Your task to perform on an android device: Go to Amazon Image 0: 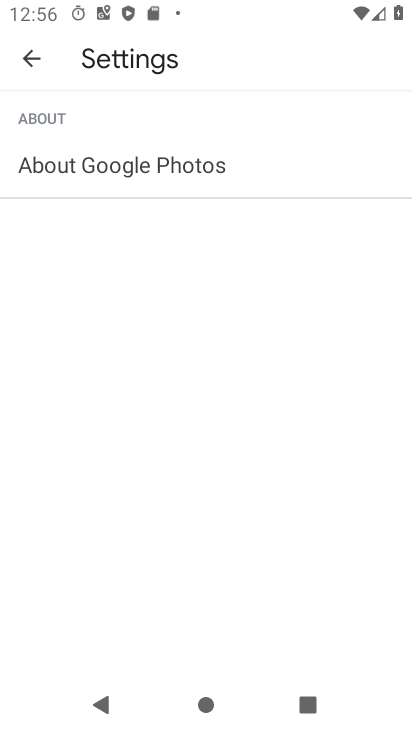
Step 0: press home button
Your task to perform on an android device: Go to Amazon Image 1: 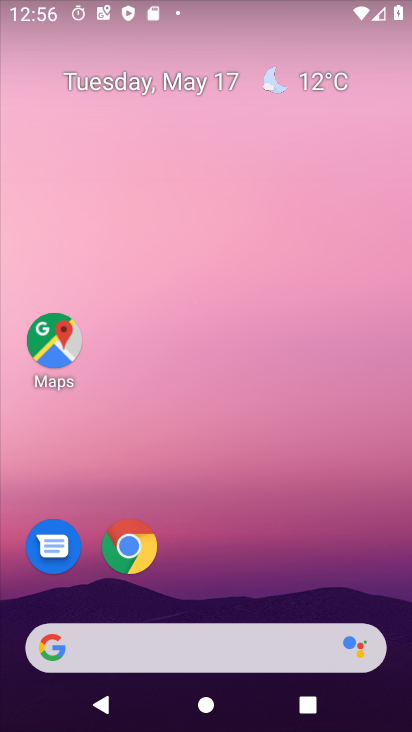
Step 1: click (125, 559)
Your task to perform on an android device: Go to Amazon Image 2: 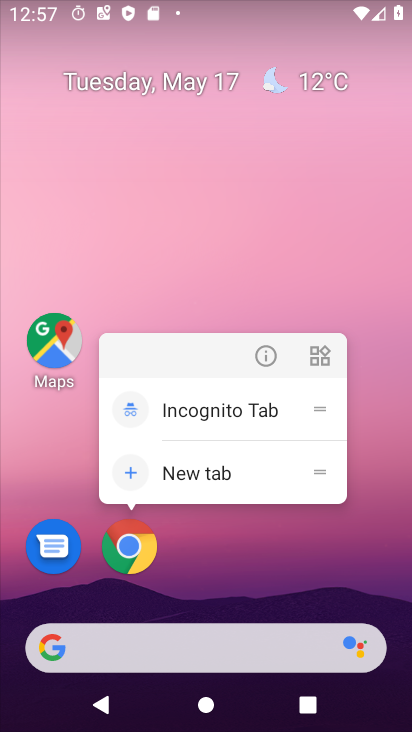
Step 2: click (129, 546)
Your task to perform on an android device: Go to Amazon Image 3: 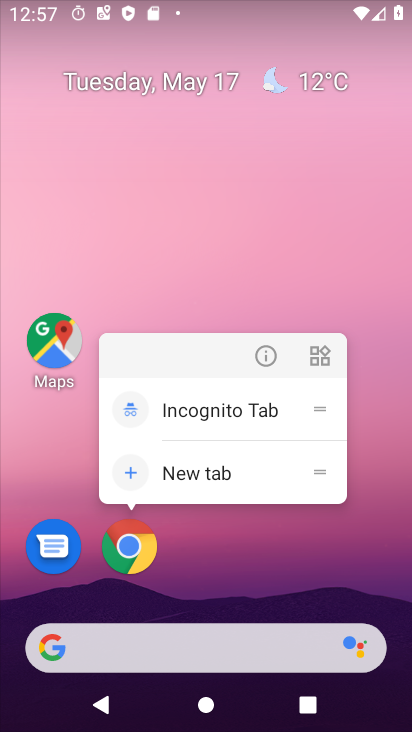
Step 3: click (133, 555)
Your task to perform on an android device: Go to Amazon Image 4: 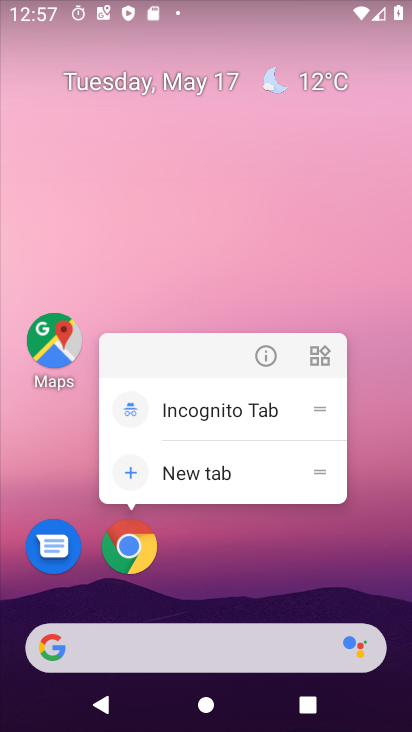
Step 4: click (133, 555)
Your task to perform on an android device: Go to Amazon Image 5: 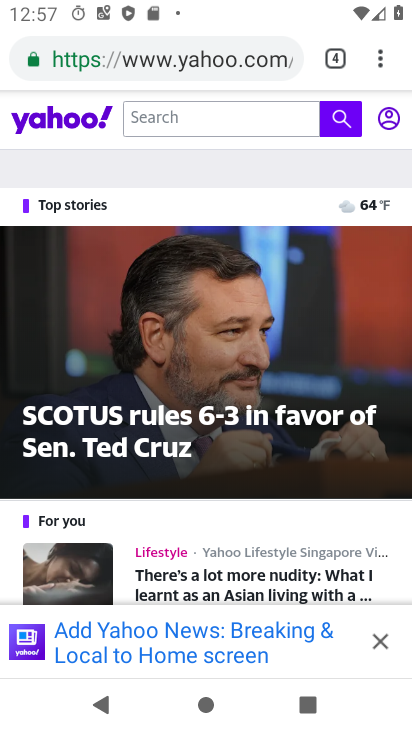
Step 5: drag from (380, 67) to (250, 115)
Your task to perform on an android device: Go to Amazon Image 6: 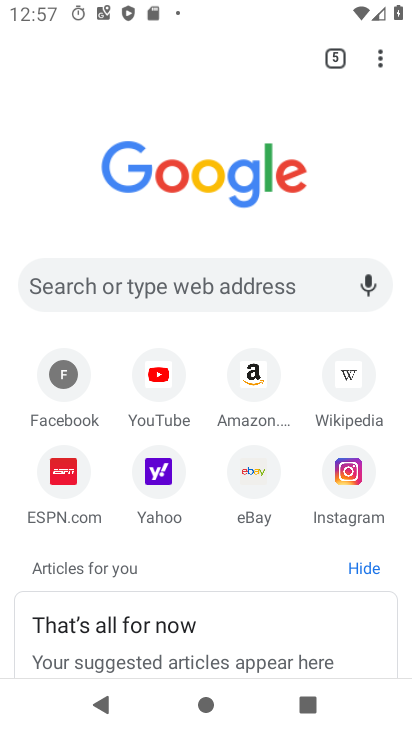
Step 6: click (252, 379)
Your task to perform on an android device: Go to Amazon Image 7: 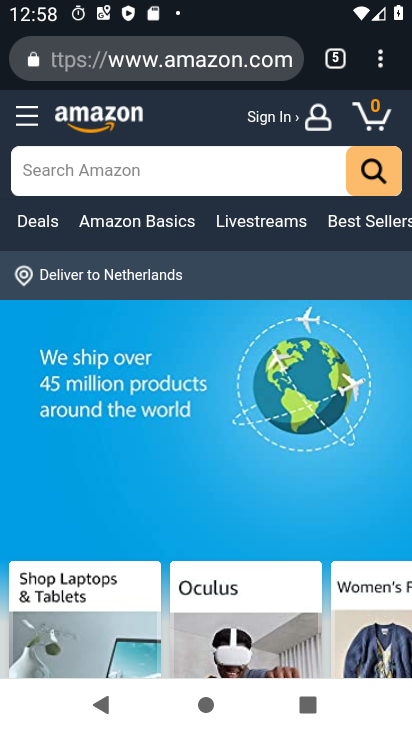
Step 7: task complete